Your task to perform on an android device: Open CNN.com Image 0: 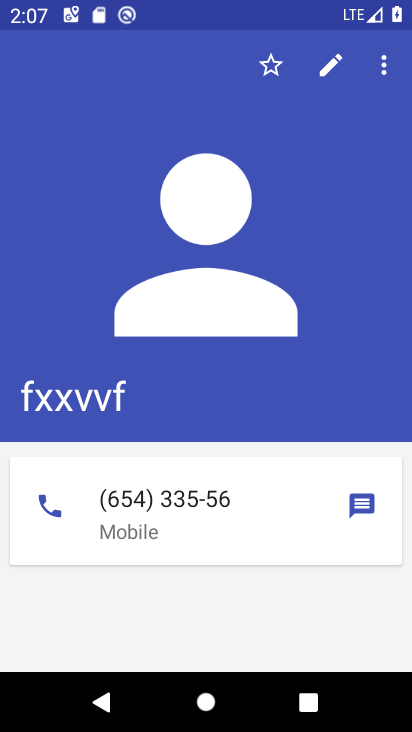
Step 0: press home button
Your task to perform on an android device: Open CNN.com Image 1: 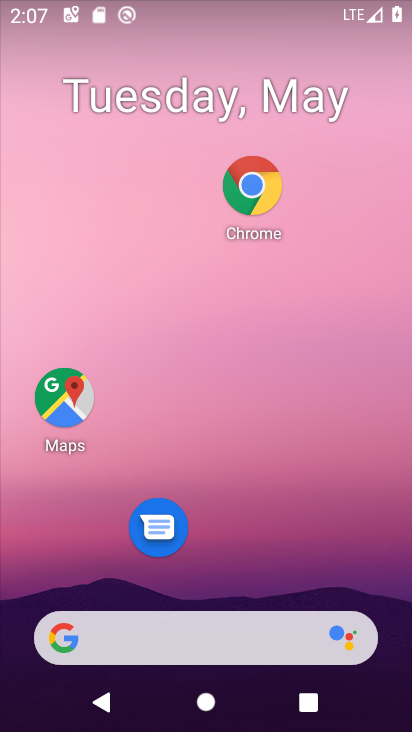
Step 1: click (218, 635)
Your task to perform on an android device: Open CNN.com Image 2: 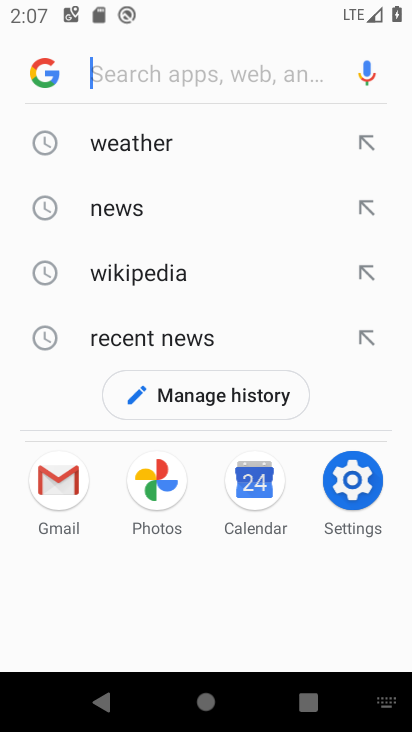
Step 2: type "cnn.com"
Your task to perform on an android device: Open CNN.com Image 3: 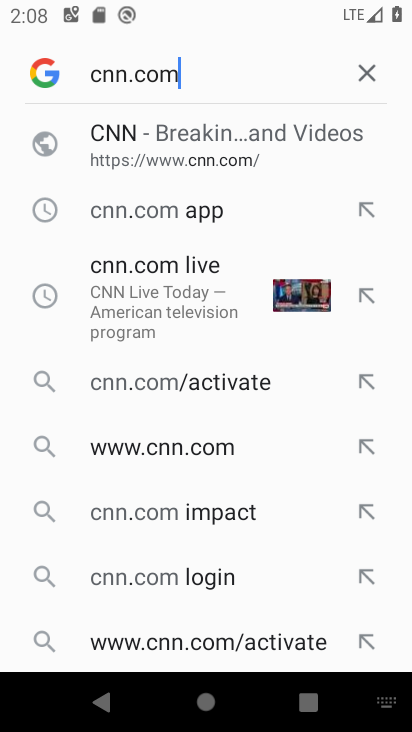
Step 3: click (174, 143)
Your task to perform on an android device: Open CNN.com Image 4: 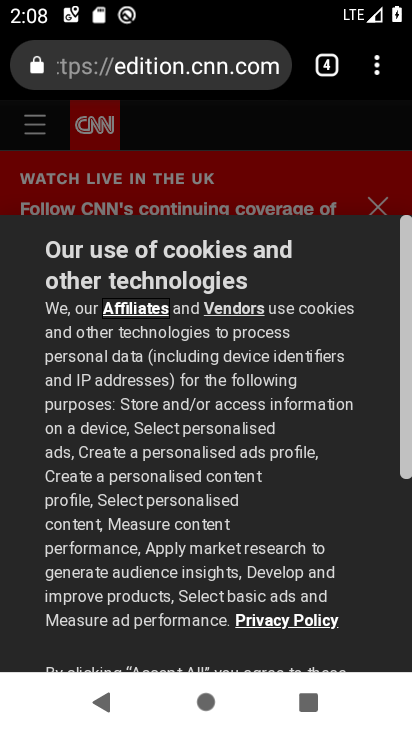
Step 4: task complete